Your task to perform on an android device: uninstall "Expedia: Hotels, Flights & Car" Image 0: 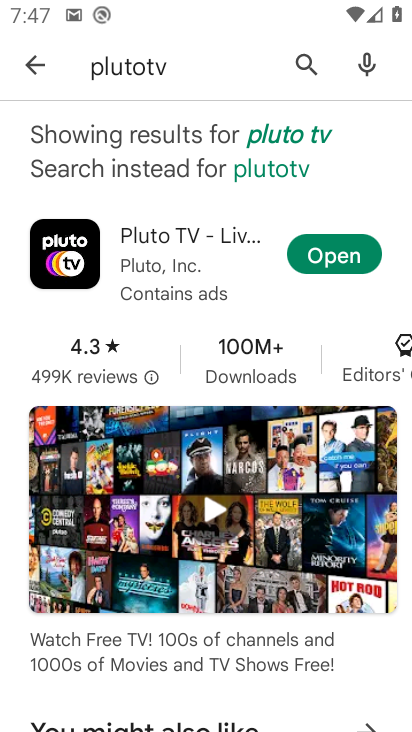
Step 0: click (307, 69)
Your task to perform on an android device: uninstall "Expedia: Hotels, Flights & Car" Image 1: 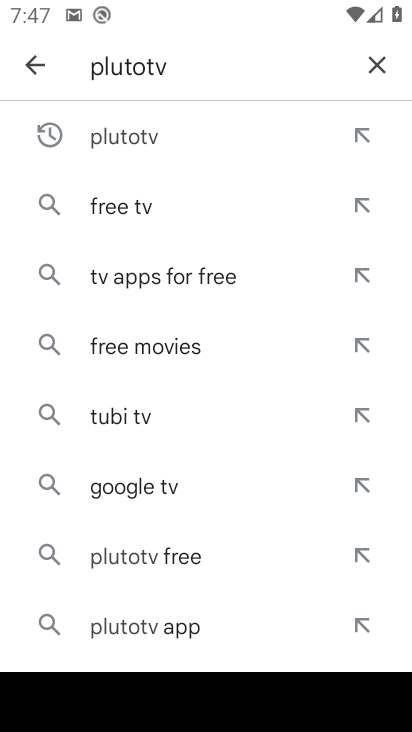
Step 1: click (369, 76)
Your task to perform on an android device: uninstall "Expedia: Hotels, Flights & Car" Image 2: 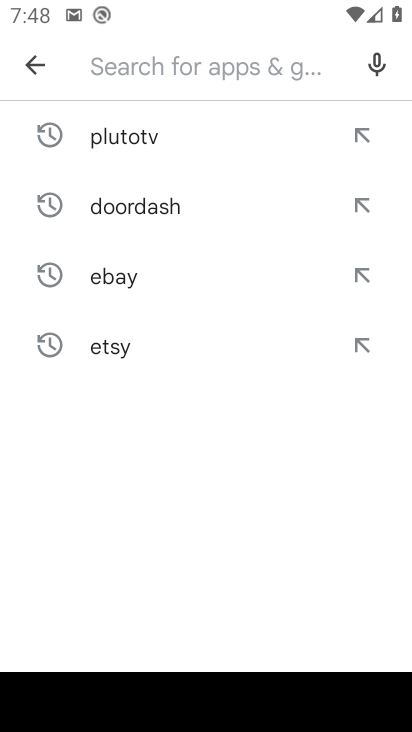
Step 2: type "expedia "
Your task to perform on an android device: uninstall "Expedia: Hotels, Flights & Car" Image 3: 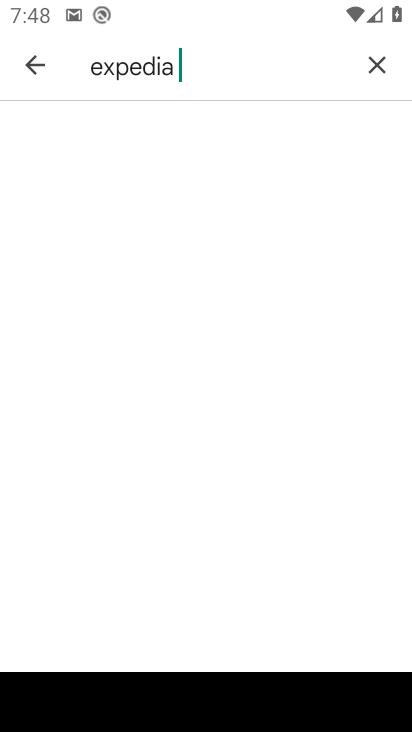
Step 3: task complete